Your task to perform on an android device: Open settings Image 0: 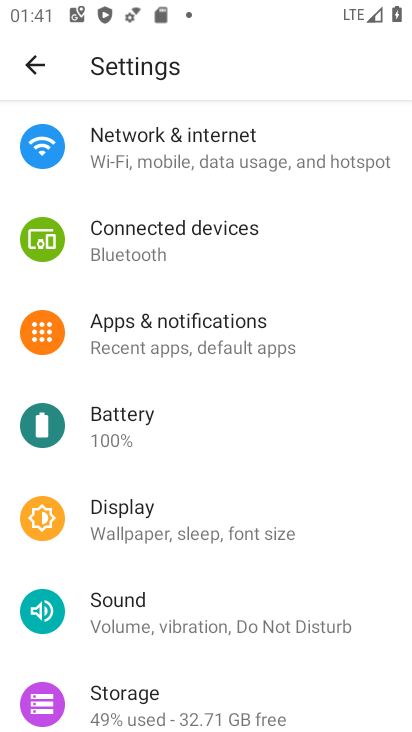
Step 0: drag from (376, 588) to (369, 451)
Your task to perform on an android device: Open settings Image 1: 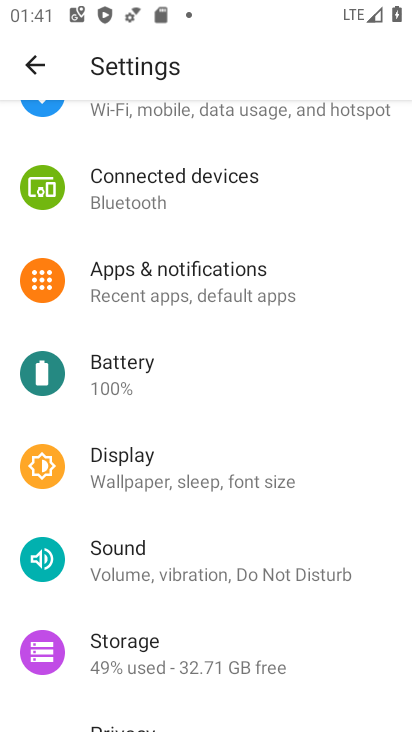
Step 1: task complete